Your task to perform on an android device: Open location settings Image 0: 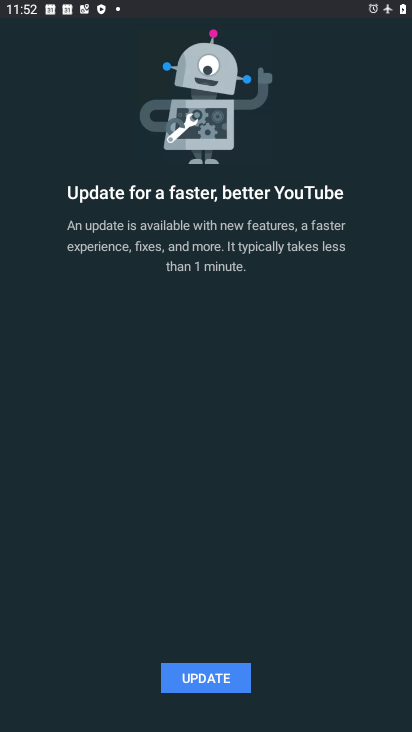
Step 0: press home button
Your task to perform on an android device: Open location settings Image 1: 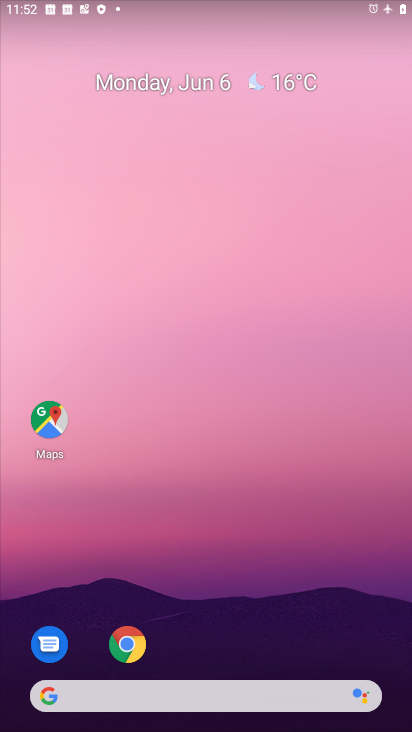
Step 1: drag from (278, 599) to (288, 111)
Your task to perform on an android device: Open location settings Image 2: 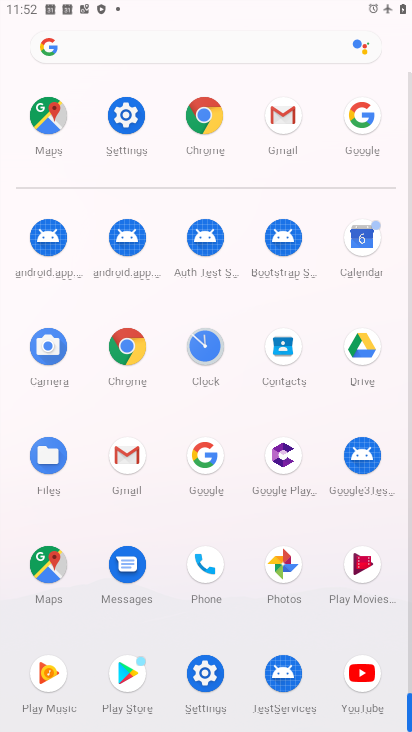
Step 2: click (197, 669)
Your task to perform on an android device: Open location settings Image 3: 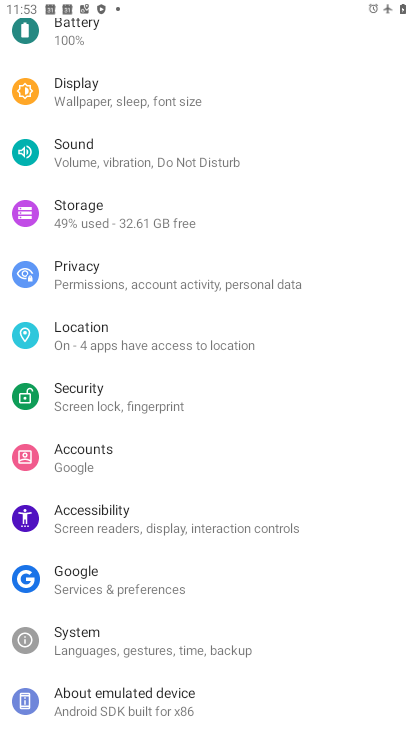
Step 3: click (212, 348)
Your task to perform on an android device: Open location settings Image 4: 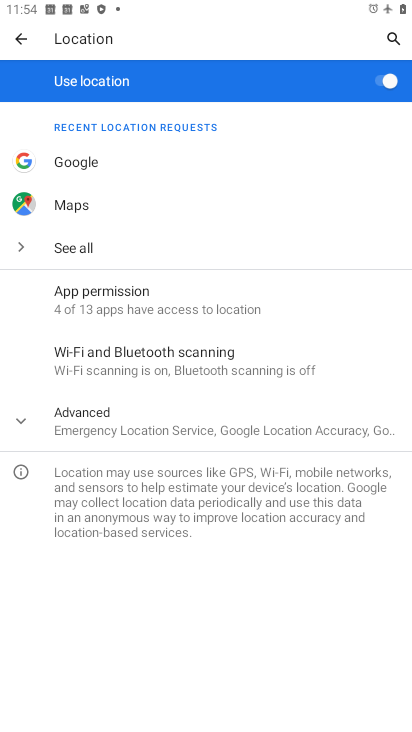
Step 4: task complete